Your task to perform on an android device: Show me recent news Image 0: 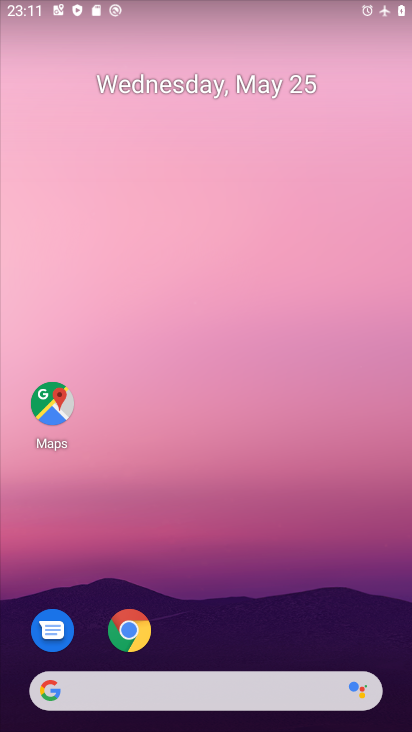
Step 0: drag from (216, 628) to (287, 237)
Your task to perform on an android device: Show me recent news Image 1: 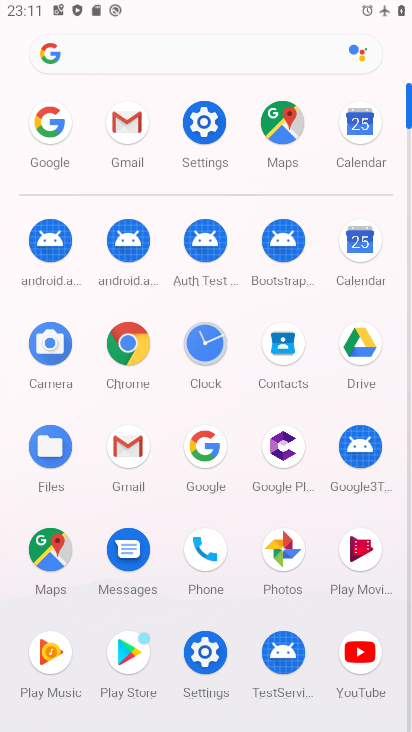
Step 1: click (199, 452)
Your task to perform on an android device: Show me recent news Image 2: 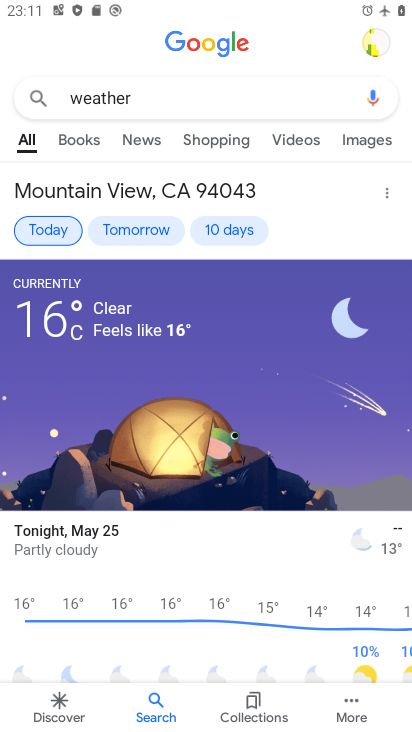
Step 2: click (148, 102)
Your task to perform on an android device: Show me recent news Image 3: 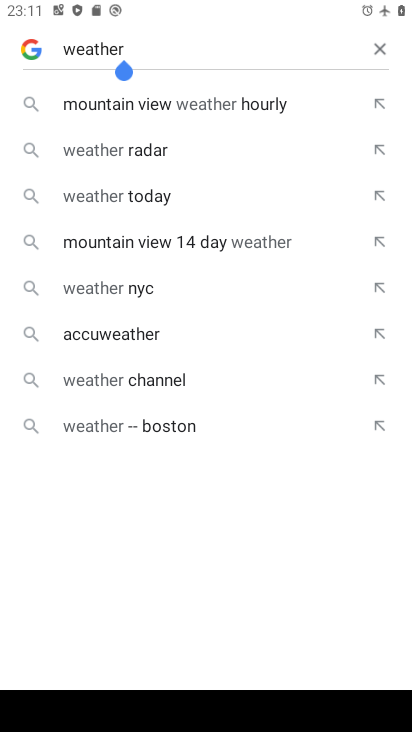
Step 3: click (377, 56)
Your task to perform on an android device: Show me recent news Image 4: 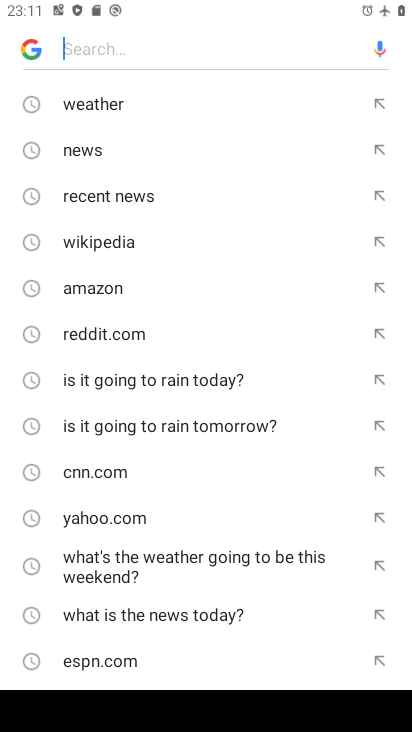
Step 4: click (92, 154)
Your task to perform on an android device: Show me recent news Image 5: 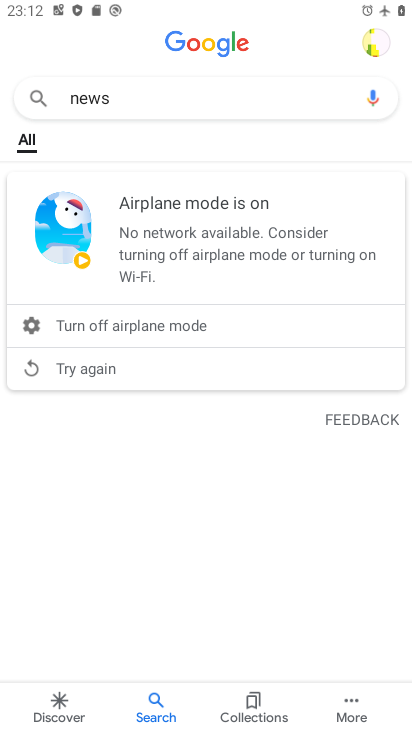
Step 5: task complete